Your task to perform on an android device: turn on improve location accuracy Image 0: 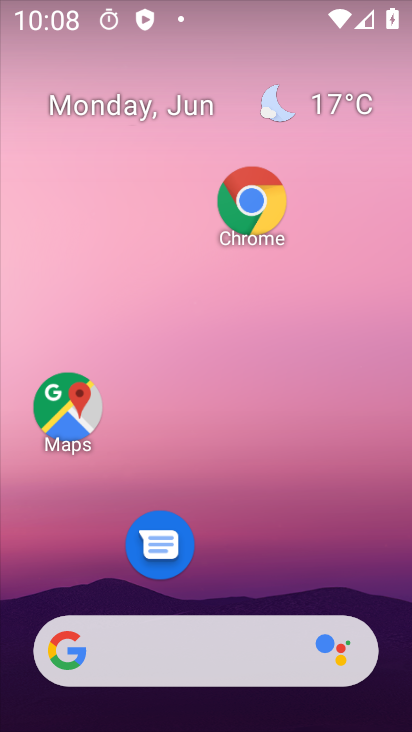
Step 0: drag from (259, 589) to (232, 72)
Your task to perform on an android device: turn on improve location accuracy Image 1: 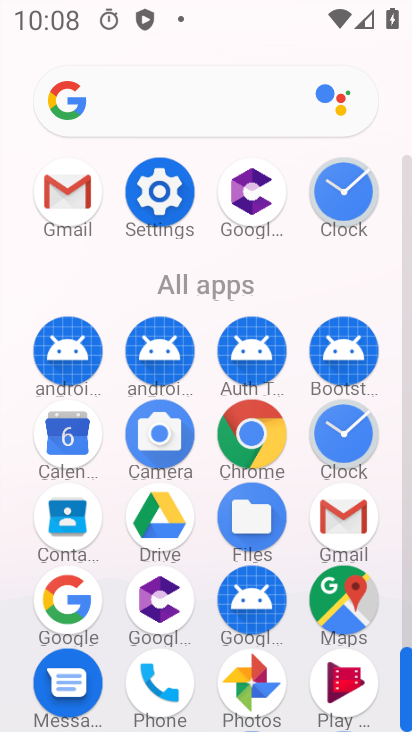
Step 1: click (166, 194)
Your task to perform on an android device: turn on improve location accuracy Image 2: 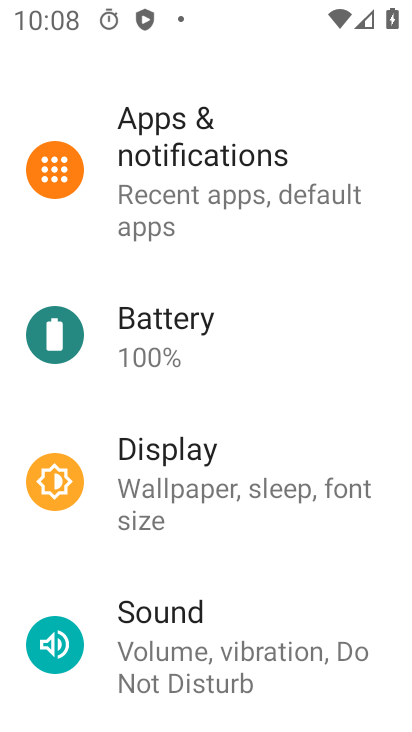
Step 2: drag from (283, 613) to (224, 99)
Your task to perform on an android device: turn on improve location accuracy Image 3: 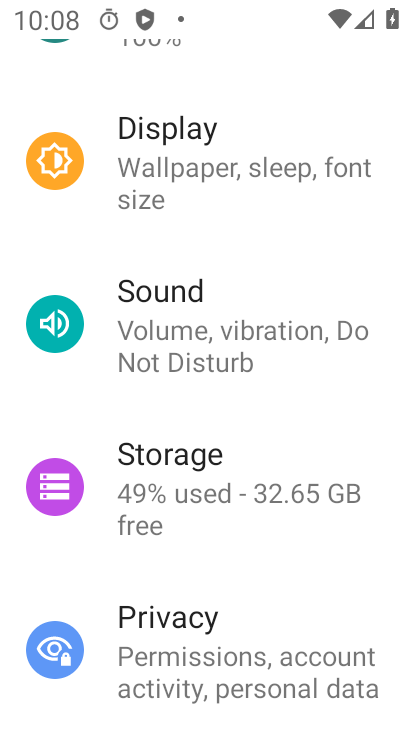
Step 3: drag from (241, 122) to (230, 573)
Your task to perform on an android device: turn on improve location accuracy Image 4: 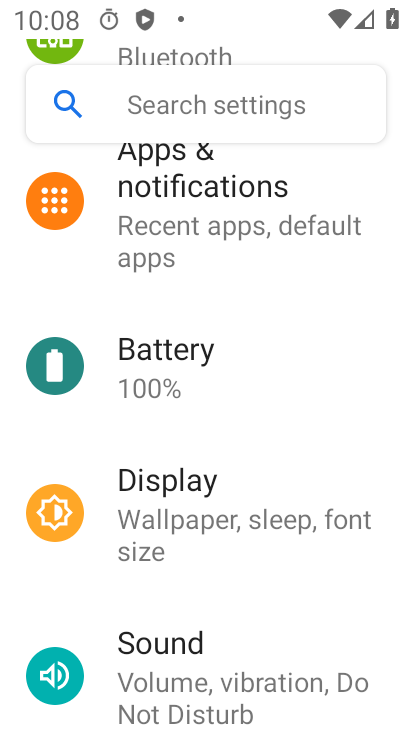
Step 4: drag from (253, 321) to (187, 721)
Your task to perform on an android device: turn on improve location accuracy Image 5: 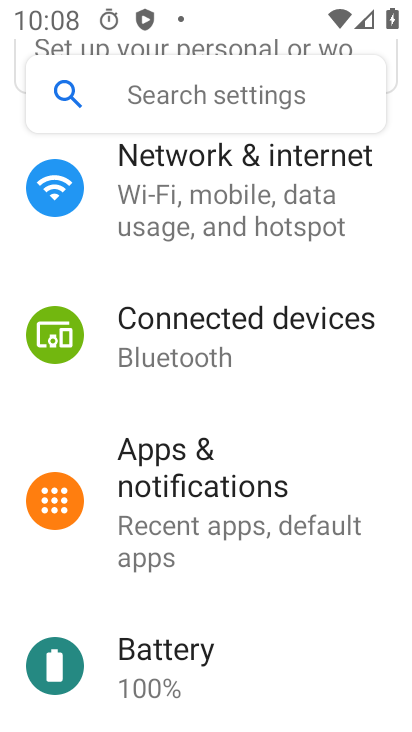
Step 5: drag from (246, 591) to (223, 60)
Your task to perform on an android device: turn on improve location accuracy Image 6: 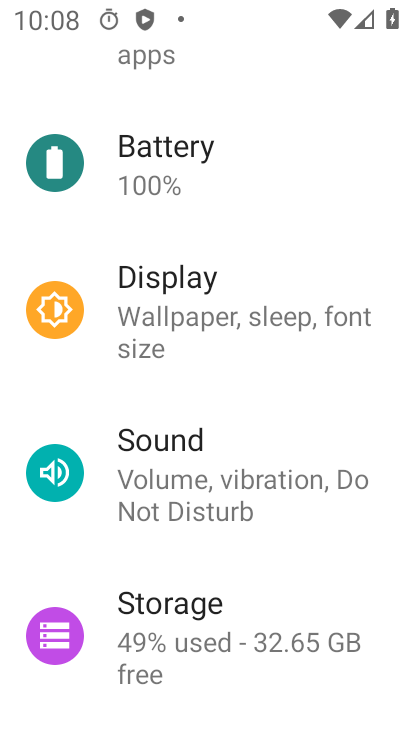
Step 6: drag from (200, 554) to (181, 160)
Your task to perform on an android device: turn on improve location accuracy Image 7: 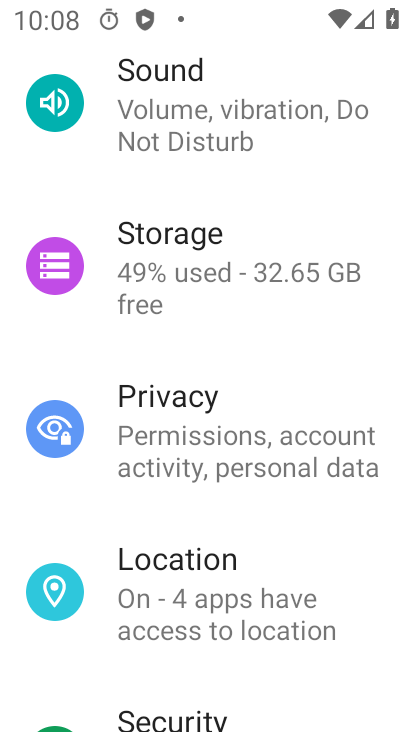
Step 7: click (181, 594)
Your task to perform on an android device: turn on improve location accuracy Image 8: 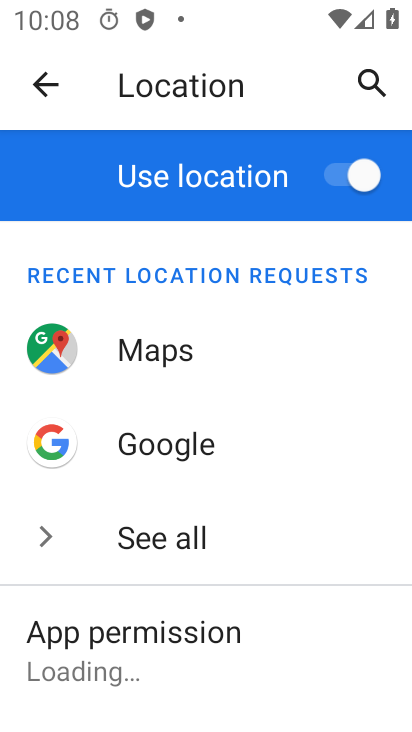
Step 8: drag from (181, 594) to (134, 117)
Your task to perform on an android device: turn on improve location accuracy Image 9: 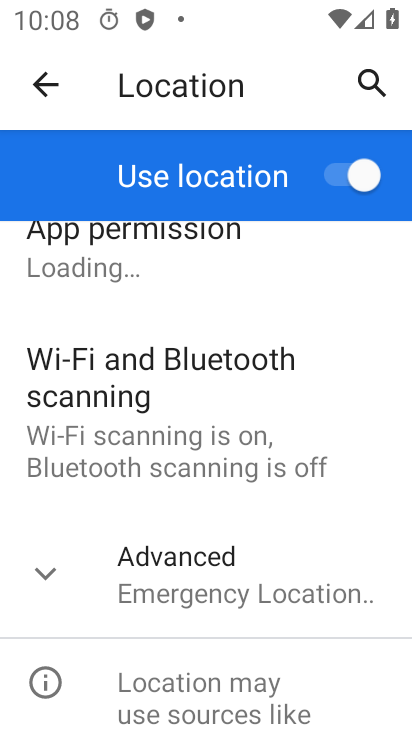
Step 9: click (124, 557)
Your task to perform on an android device: turn on improve location accuracy Image 10: 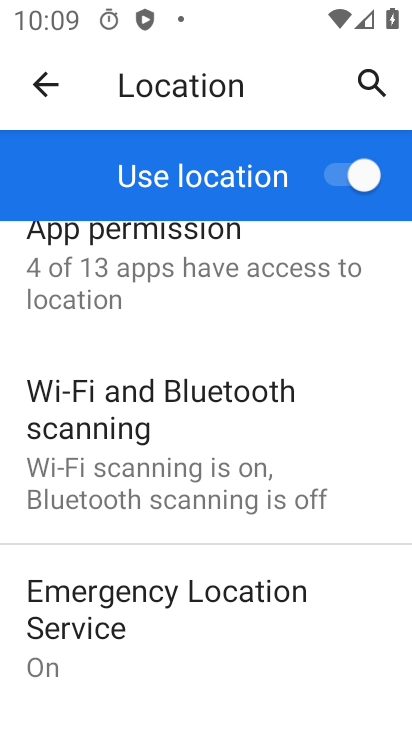
Step 10: click (139, 590)
Your task to perform on an android device: turn on improve location accuracy Image 11: 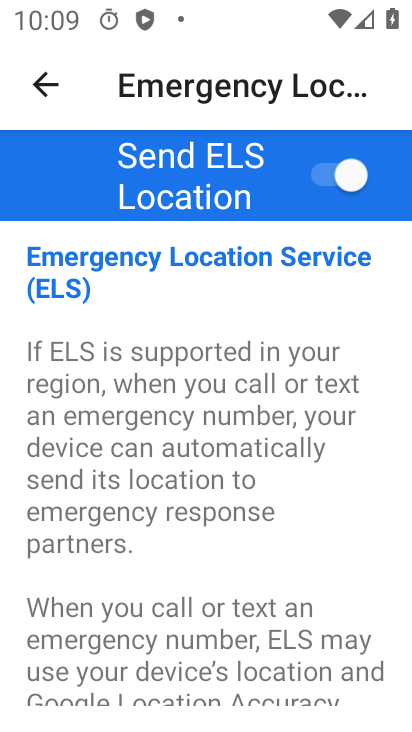
Step 11: click (46, 95)
Your task to perform on an android device: turn on improve location accuracy Image 12: 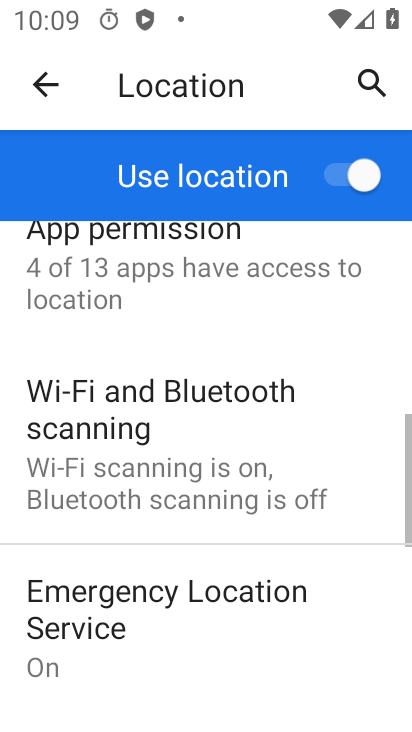
Step 12: drag from (286, 543) to (247, 184)
Your task to perform on an android device: turn on improve location accuracy Image 13: 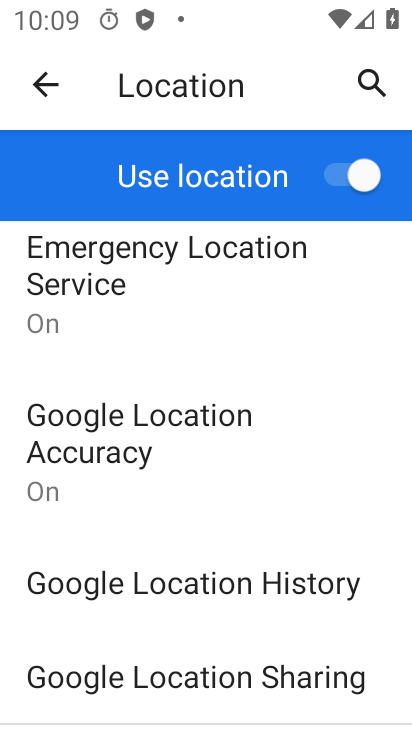
Step 13: click (189, 489)
Your task to perform on an android device: turn on improve location accuracy Image 14: 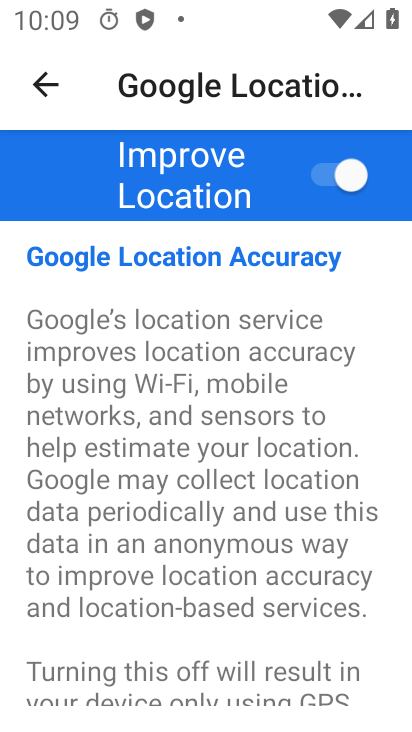
Step 14: task complete